Your task to perform on an android device: Open the Play Movies app and select the watchlist tab. Image 0: 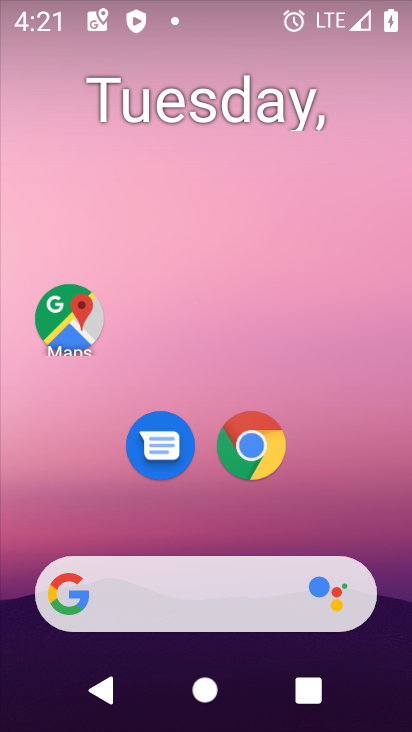
Step 0: drag from (371, 514) to (370, 171)
Your task to perform on an android device: Open the Play Movies app and select the watchlist tab. Image 1: 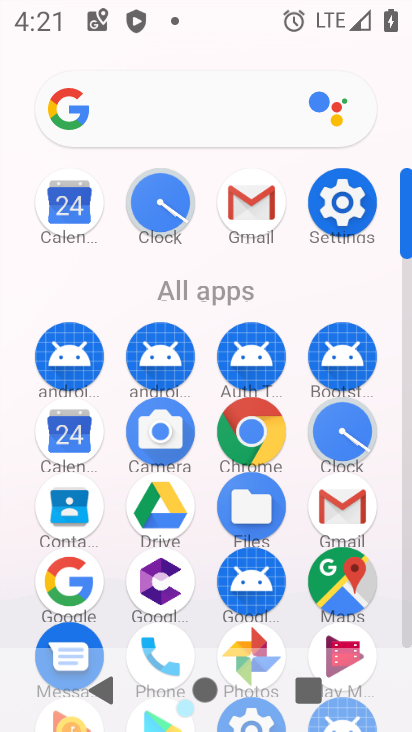
Step 1: click (333, 634)
Your task to perform on an android device: Open the Play Movies app and select the watchlist tab. Image 2: 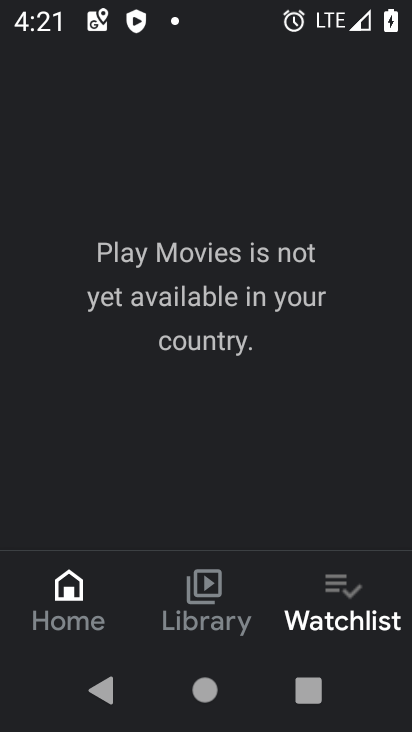
Step 2: click (346, 607)
Your task to perform on an android device: Open the Play Movies app and select the watchlist tab. Image 3: 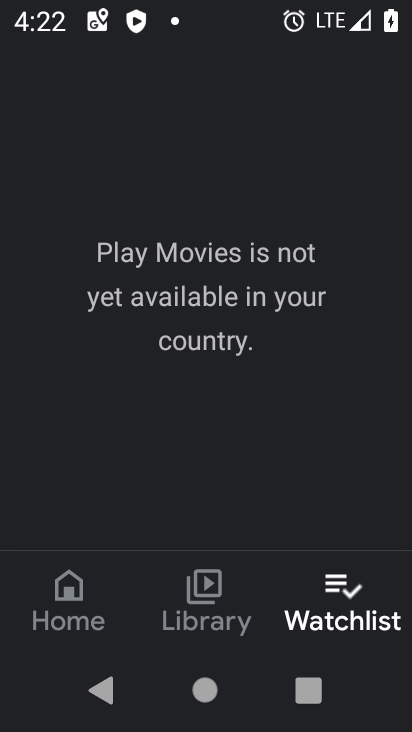
Step 3: task complete